Your task to perform on an android device: What is the news today? Image 0: 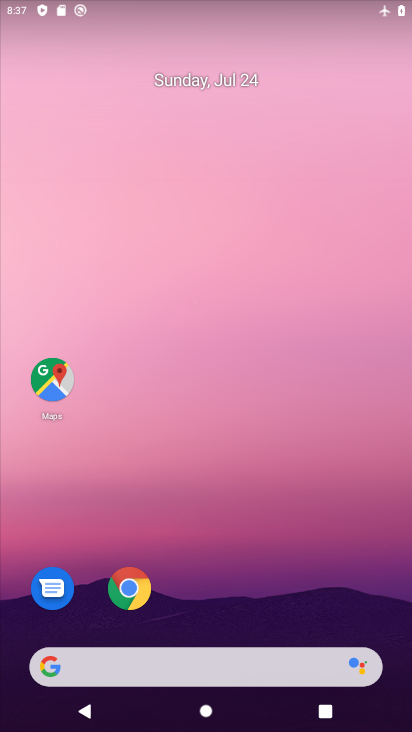
Step 0: click (291, 156)
Your task to perform on an android device: What is the news today? Image 1: 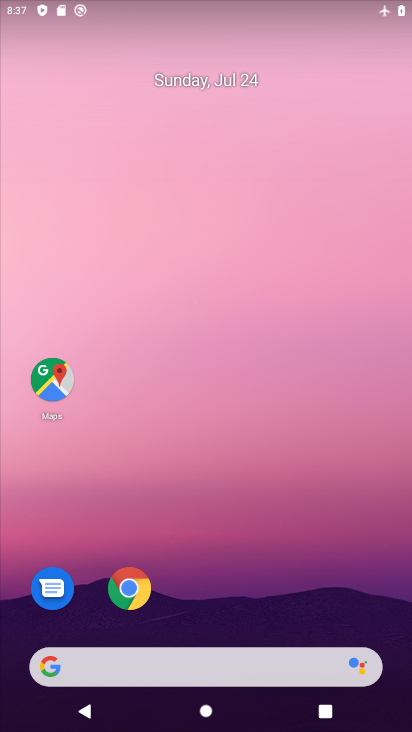
Step 1: drag from (181, 392) to (181, 260)
Your task to perform on an android device: What is the news today? Image 2: 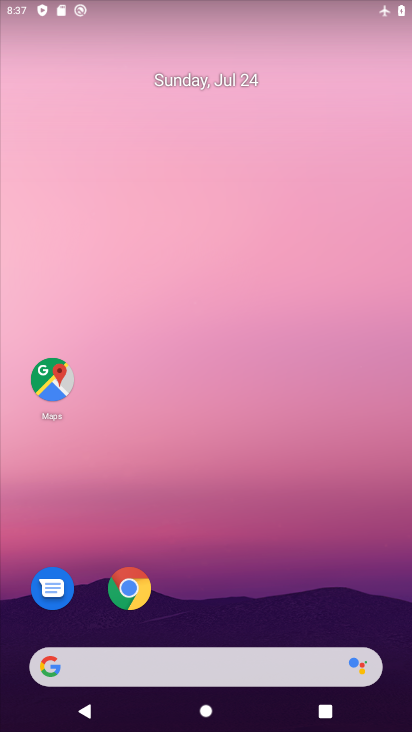
Step 2: drag from (243, 605) to (205, 115)
Your task to perform on an android device: What is the news today? Image 3: 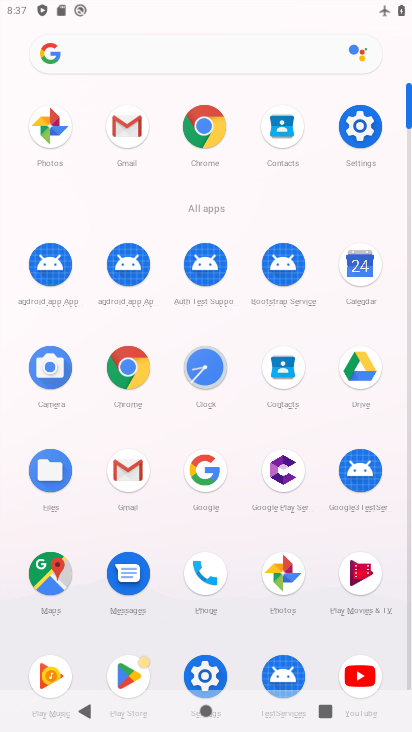
Step 3: click (133, 367)
Your task to perform on an android device: What is the news today? Image 4: 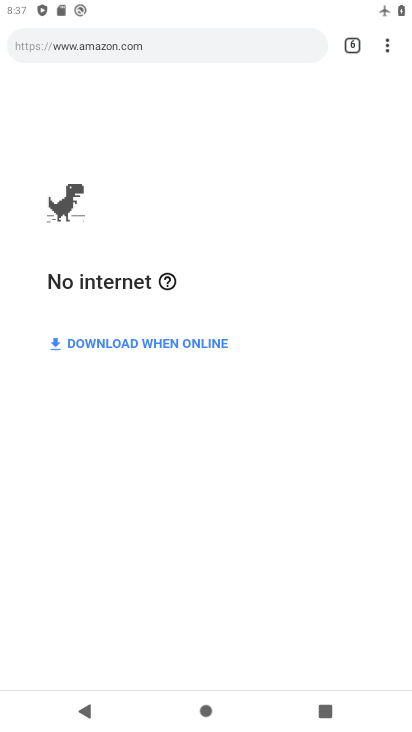
Step 4: click (392, 35)
Your task to perform on an android device: What is the news today? Image 5: 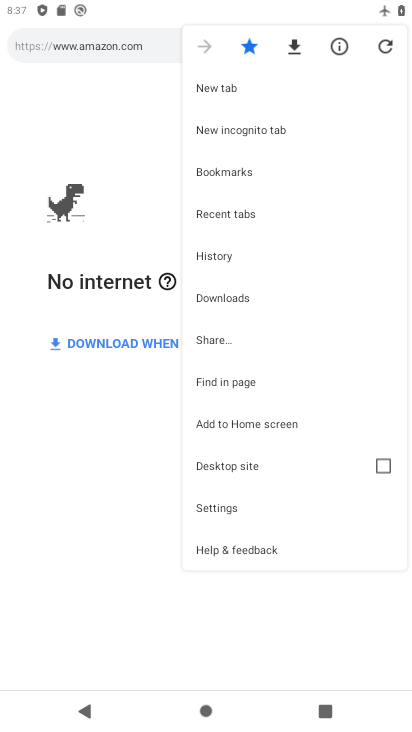
Step 5: click (221, 86)
Your task to perform on an android device: What is the news today? Image 6: 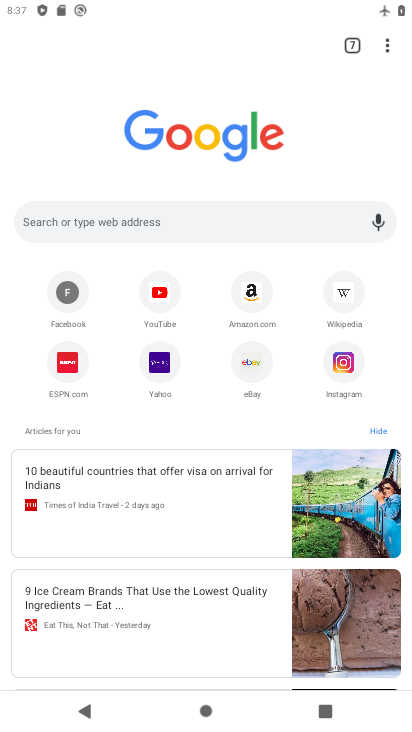
Step 6: click (133, 217)
Your task to perform on an android device: What is the news today? Image 7: 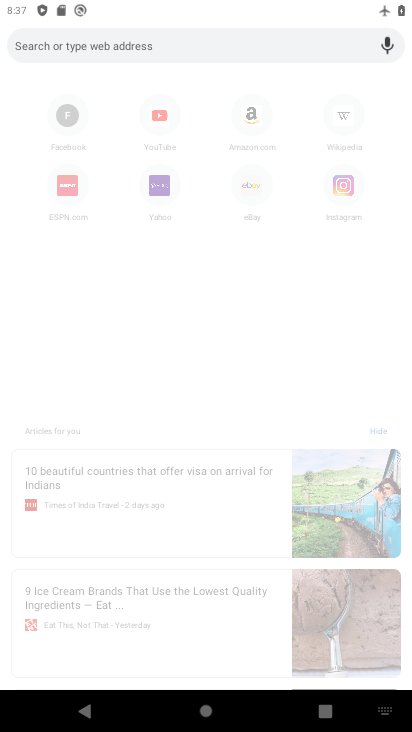
Step 7: type "What is the news today "
Your task to perform on an android device: What is the news today? Image 8: 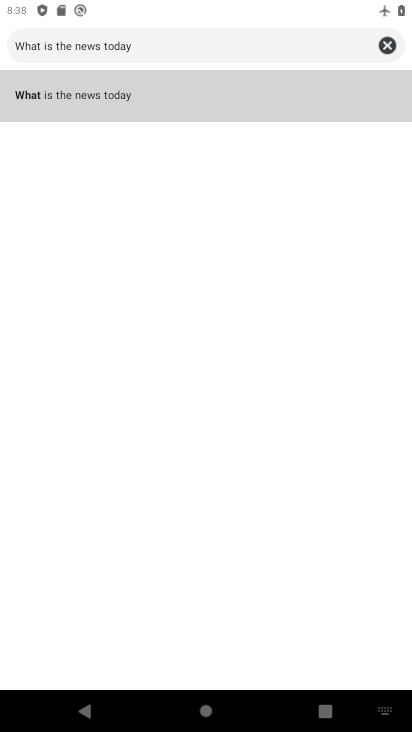
Step 8: click (154, 89)
Your task to perform on an android device: What is the news today? Image 9: 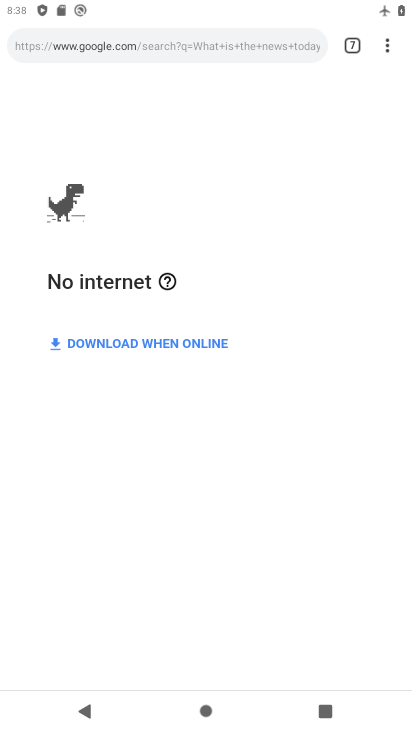
Step 9: task complete